Your task to perform on an android device: change the clock display to digital Image 0: 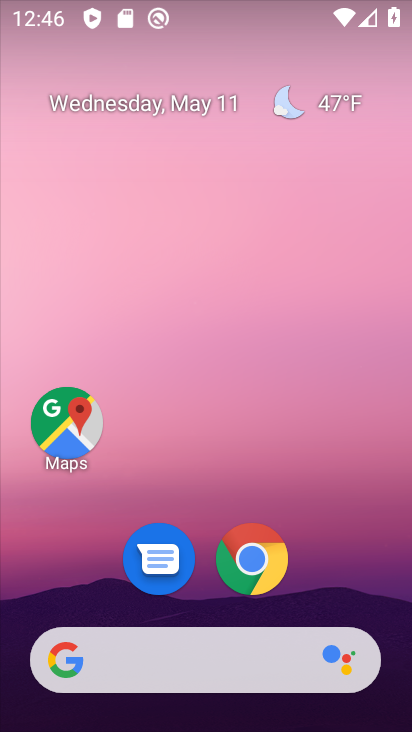
Step 0: drag from (328, 605) to (342, 25)
Your task to perform on an android device: change the clock display to digital Image 1: 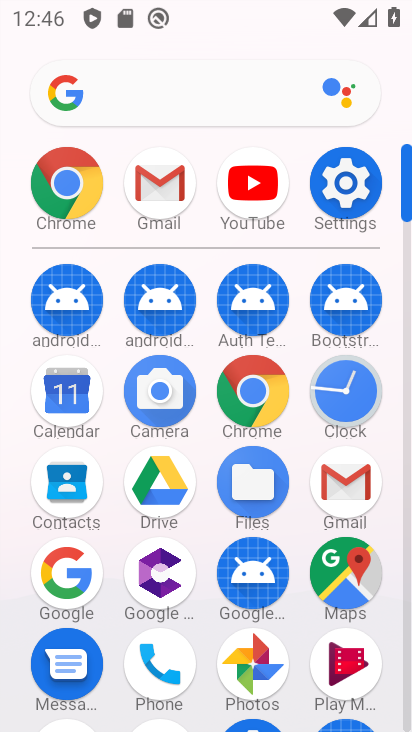
Step 1: click (339, 382)
Your task to perform on an android device: change the clock display to digital Image 2: 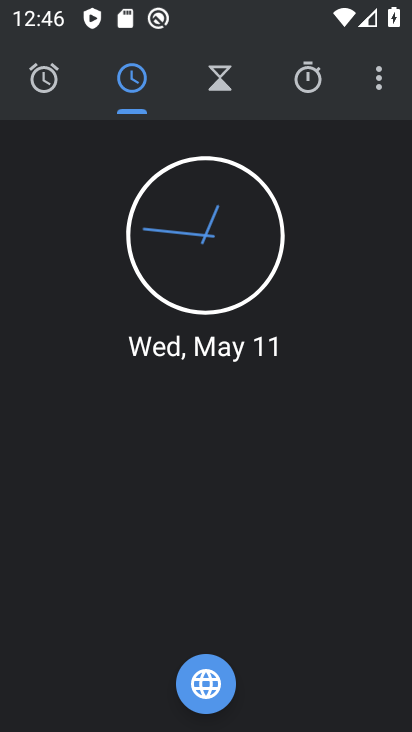
Step 2: click (384, 94)
Your task to perform on an android device: change the clock display to digital Image 3: 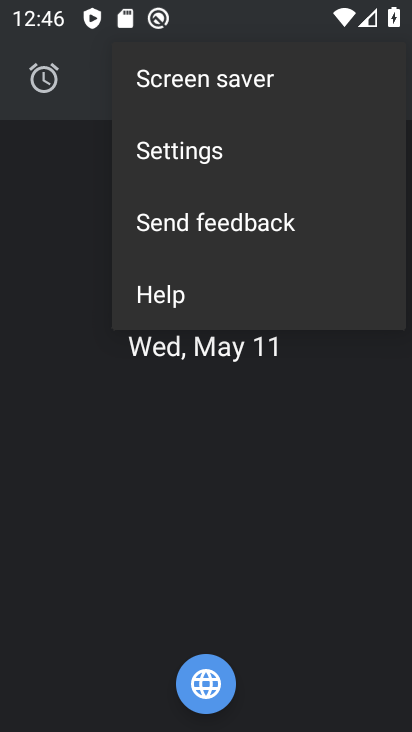
Step 3: click (192, 151)
Your task to perform on an android device: change the clock display to digital Image 4: 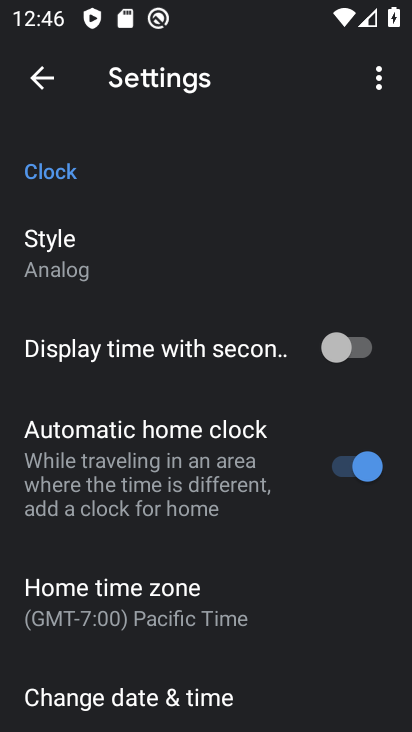
Step 4: click (87, 267)
Your task to perform on an android device: change the clock display to digital Image 5: 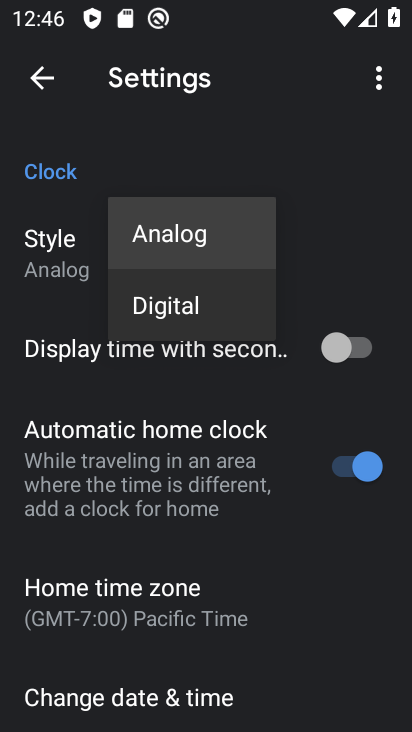
Step 5: click (166, 309)
Your task to perform on an android device: change the clock display to digital Image 6: 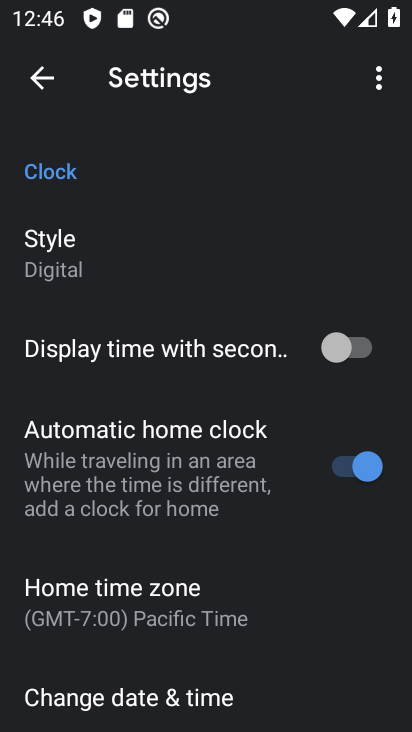
Step 6: task complete